Your task to perform on an android device: install app "Google Maps" Image 0: 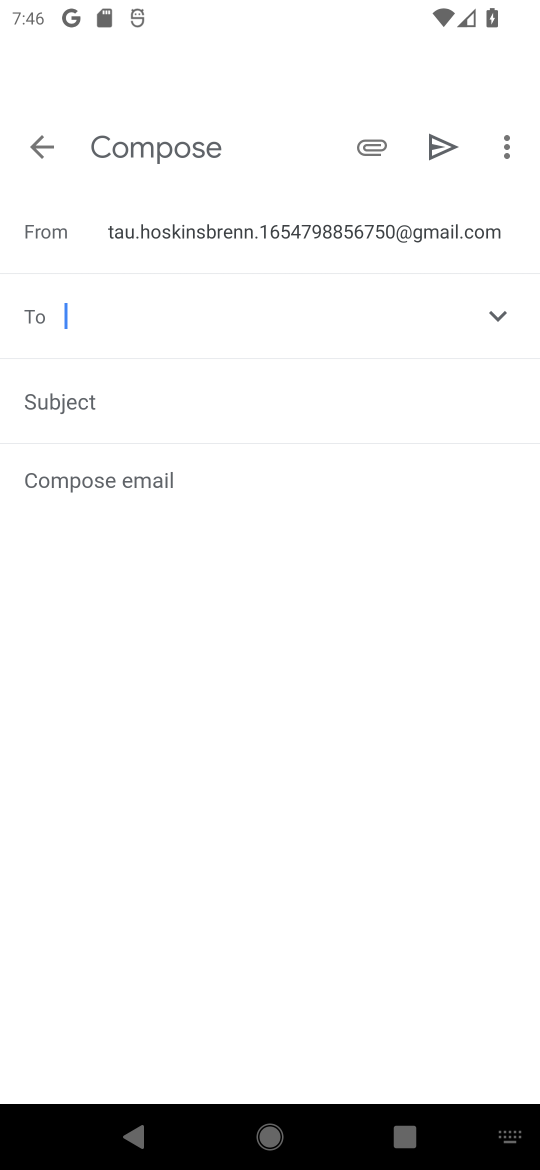
Step 0: press home button
Your task to perform on an android device: install app "Google Maps" Image 1: 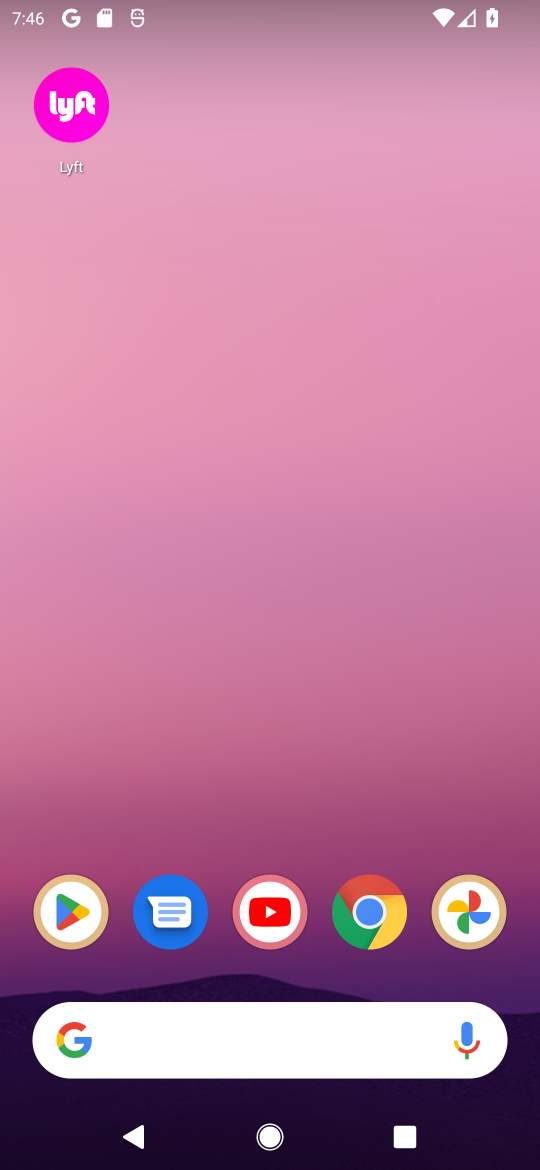
Step 1: drag from (212, 1026) to (200, 327)
Your task to perform on an android device: install app "Google Maps" Image 2: 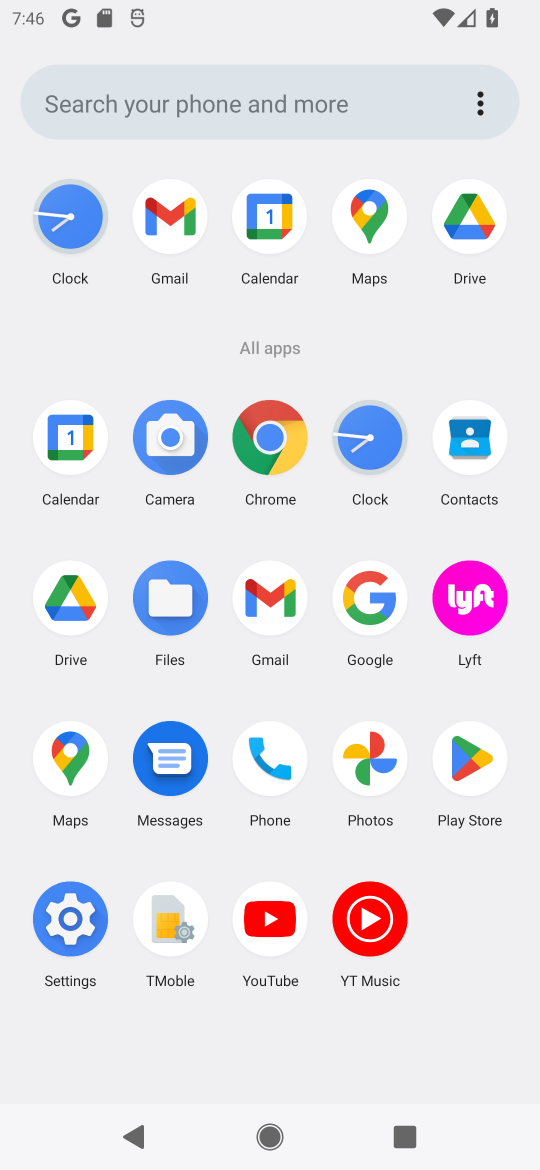
Step 2: click (57, 766)
Your task to perform on an android device: install app "Google Maps" Image 3: 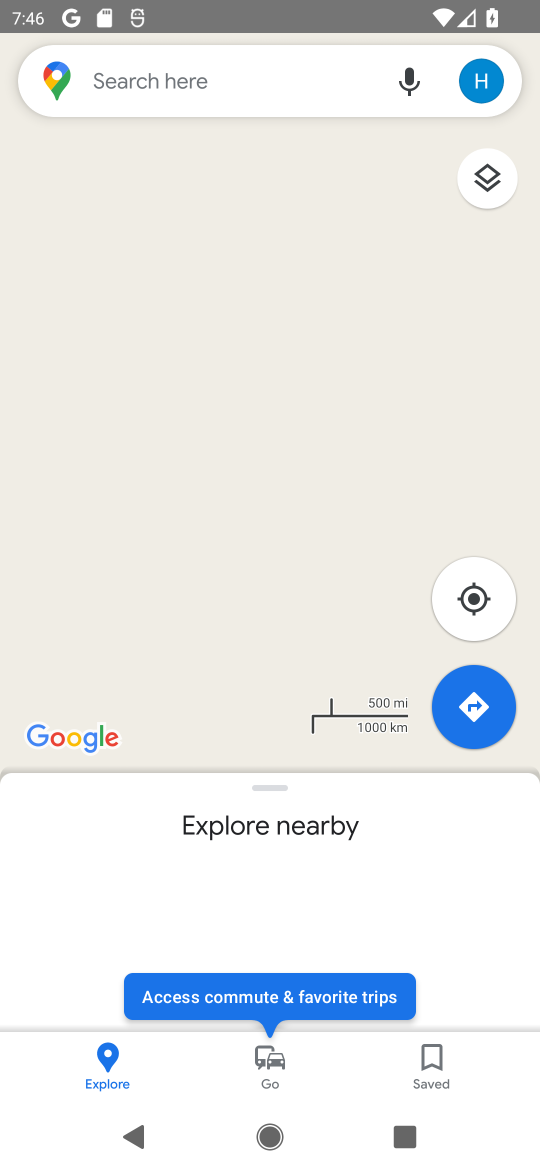
Step 3: task complete